Your task to perform on an android device: Do I have any events tomorrow? Image 0: 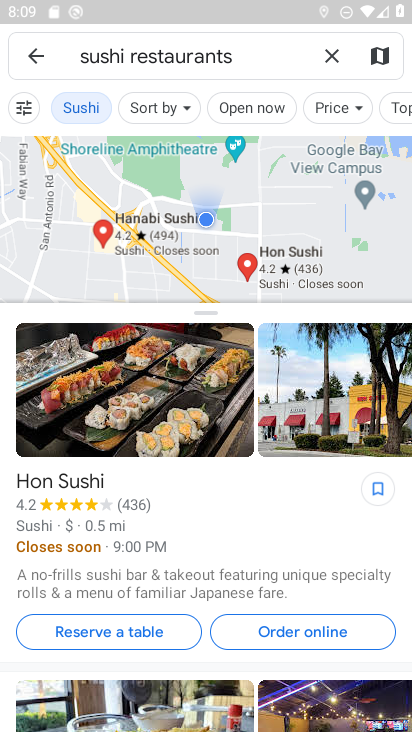
Step 0: press home button
Your task to perform on an android device: Do I have any events tomorrow? Image 1: 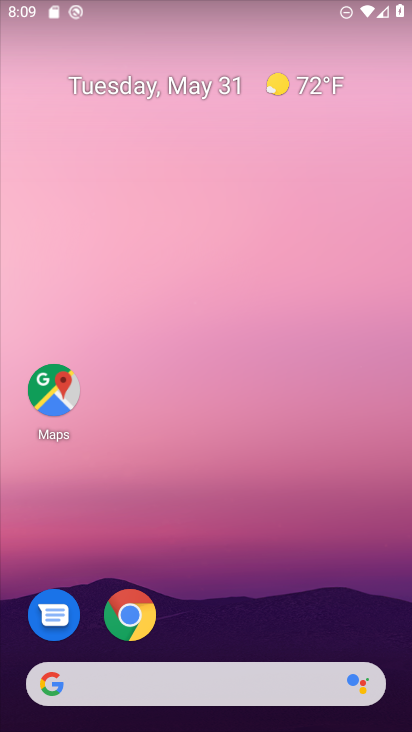
Step 1: drag from (229, 646) to (218, 32)
Your task to perform on an android device: Do I have any events tomorrow? Image 2: 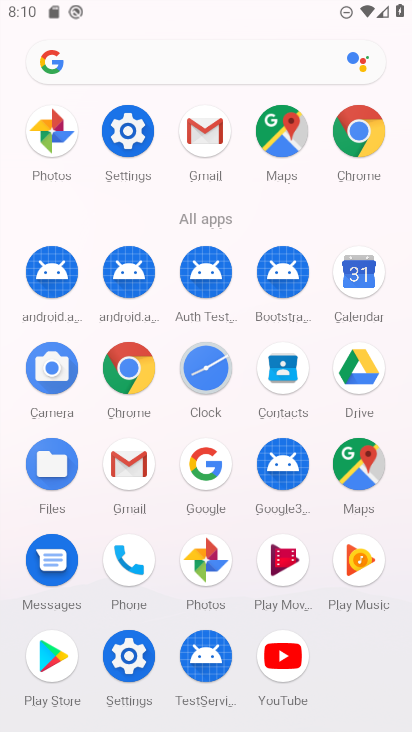
Step 2: click (360, 280)
Your task to perform on an android device: Do I have any events tomorrow? Image 3: 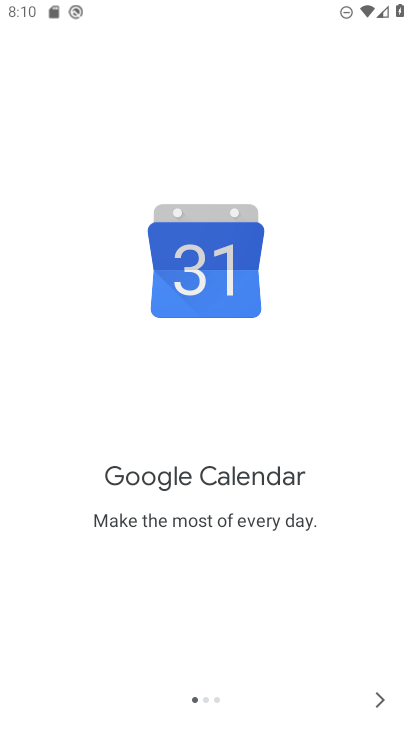
Step 3: click (389, 692)
Your task to perform on an android device: Do I have any events tomorrow? Image 4: 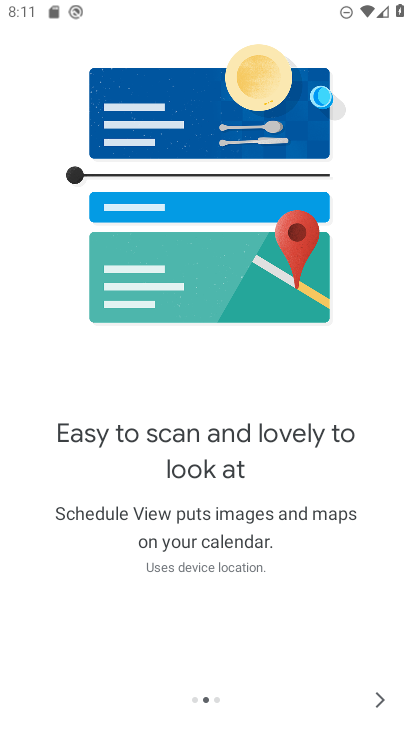
Step 4: click (379, 688)
Your task to perform on an android device: Do I have any events tomorrow? Image 5: 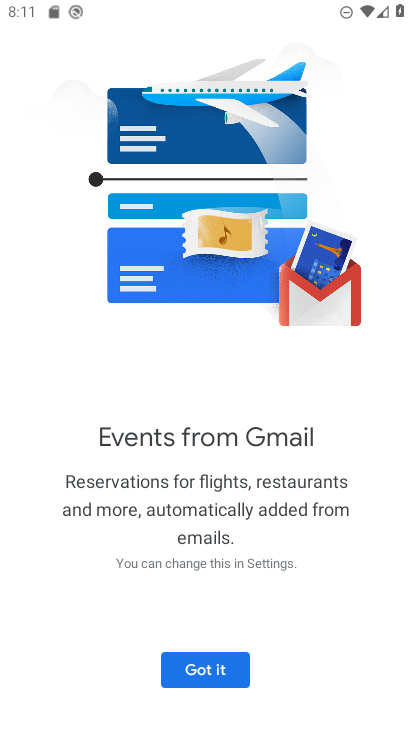
Step 5: click (228, 670)
Your task to perform on an android device: Do I have any events tomorrow? Image 6: 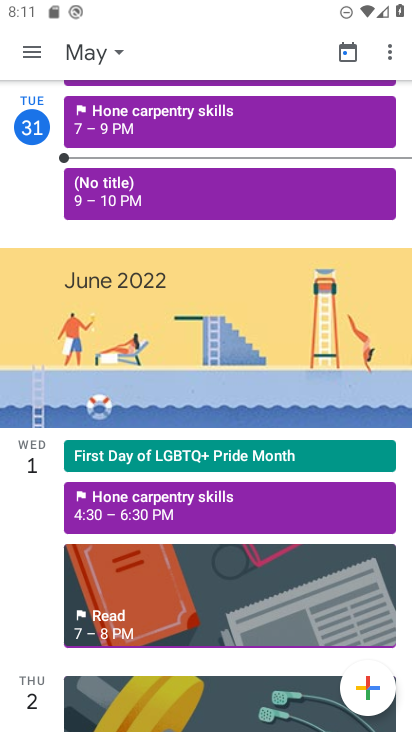
Step 6: click (76, 61)
Your task to perform on an android device: Do I have any events tomorrow? Image 7: 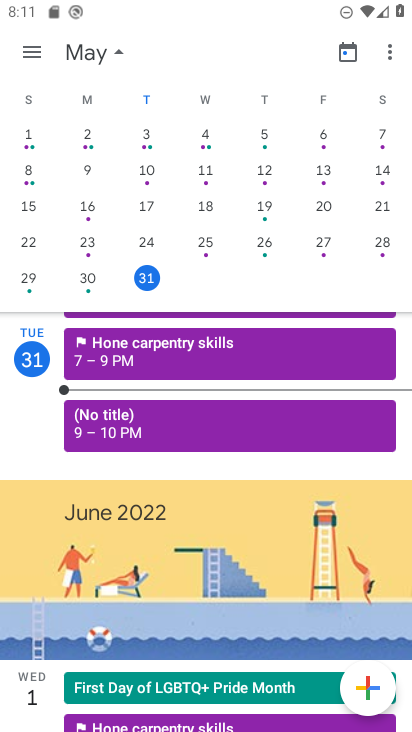
Step 7: drag from (334, 252) to (0, 277)
Your task to perform on an android device: Do I have any events tomorrow? Image 8: 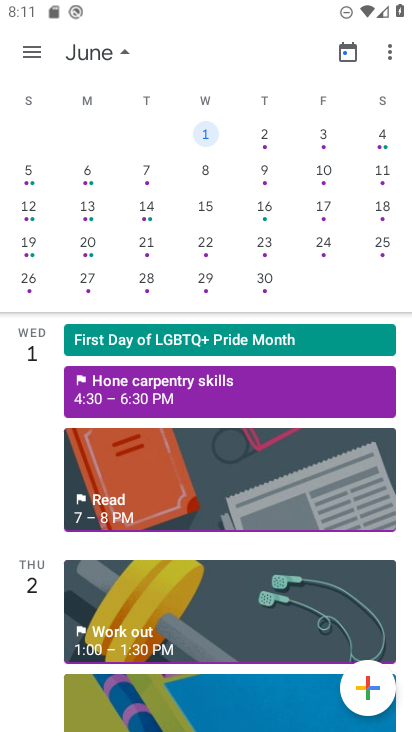
Step 8: click (208, 137)
Your task to perform on an android device: Do I have any events tomorrow? Image 9: 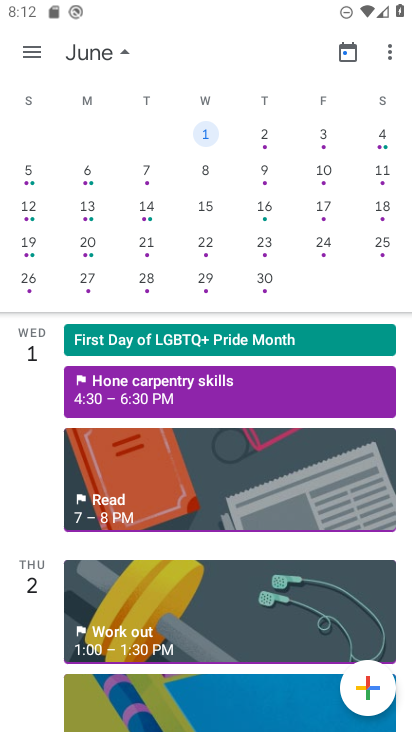
Step 9: task complete